Your task to perform on an android device: choose inbox layout in the gmail app Image 0: 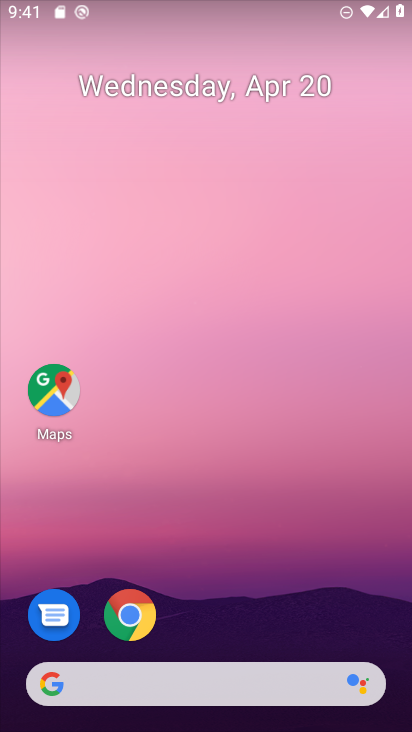
Step 0: drag from (217, 593) to (219, 175)
Your task to perform on an android device: choose inbox layout in the gmail app Image 1: 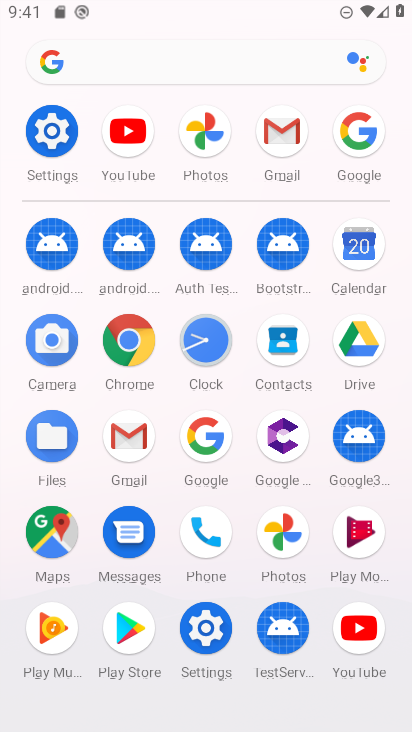
Step 1: click (286, 131)
Your task to perform on an android device: choose inbox layout in the gmail app Image 2: 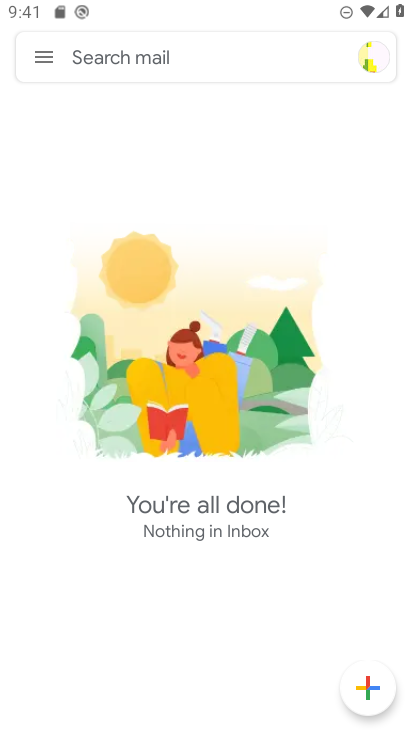
Step 2: click (42, 60)
Your task to perform on an android device: choose inbox layout in the gmail app Image 3: 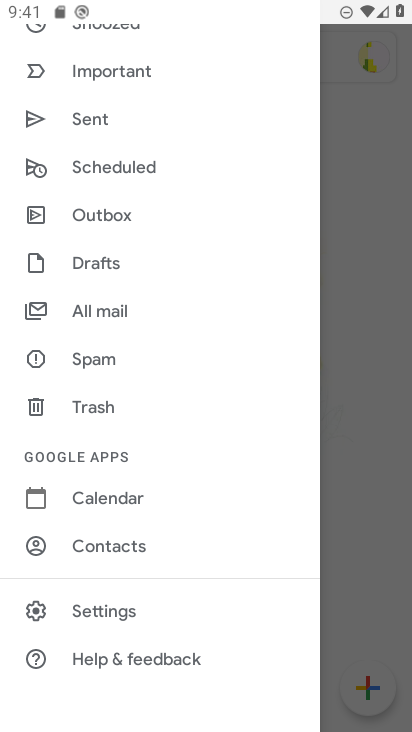
Step 3: click (110, 618)
Your task to perform on an android device: choose inbox layout in the gmail app Image 4: 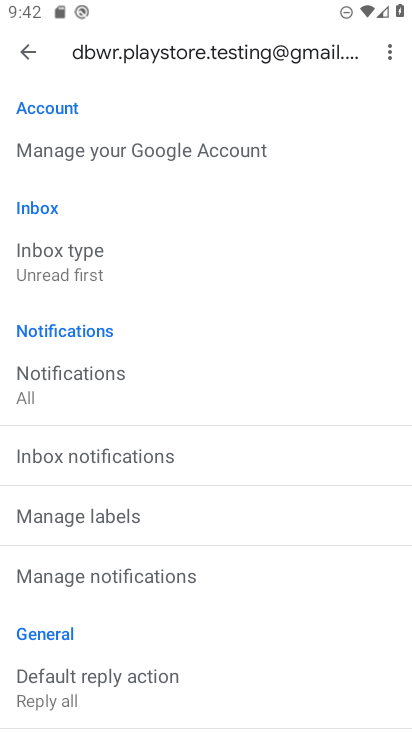
Step 4: click (89, 270)
Your task to perform on an android device: choose inbox layout in the gmail app Image 5: 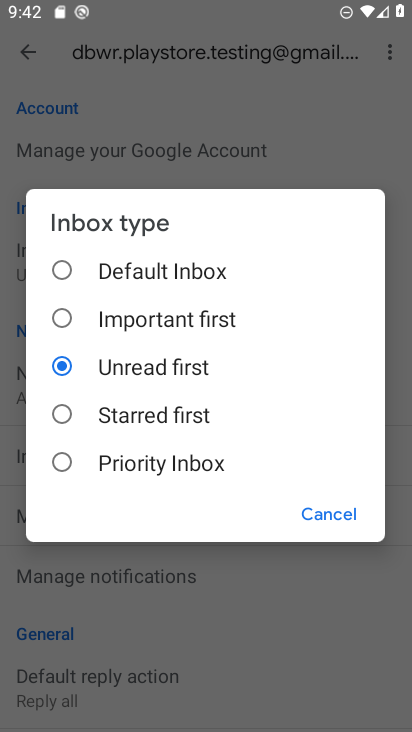
Step 5: click (121, 329)
Your task to perform on an android device: choose inbox layout in the gmail app Image 6: 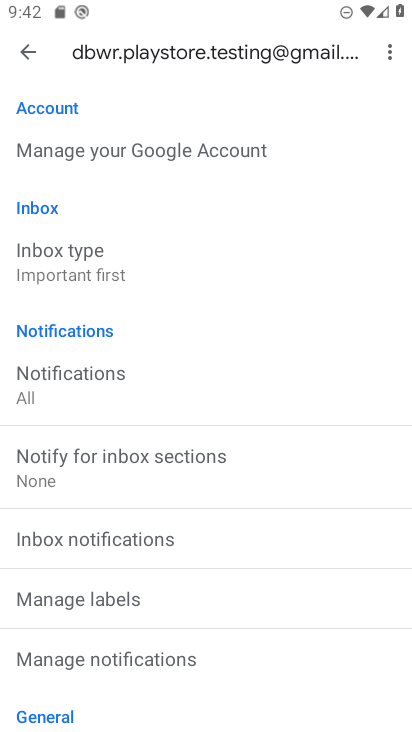
Step 6: task complete